Your task to perform on an android device: open a new tab in the chrome app Image 0: 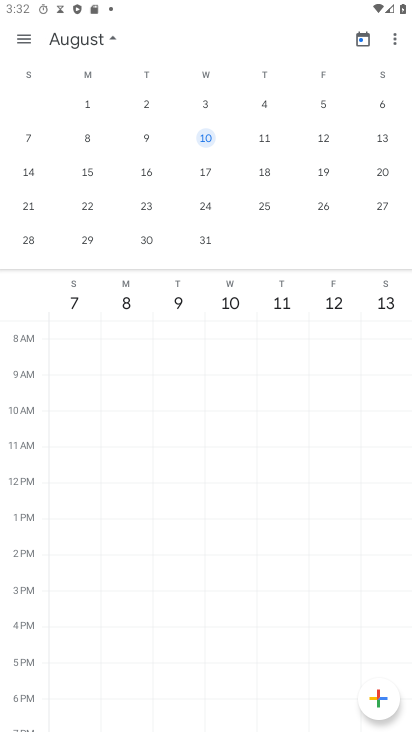
Step 0: press home button
Your task to perform on an android device: open a new tab in the chrome app Image 1: 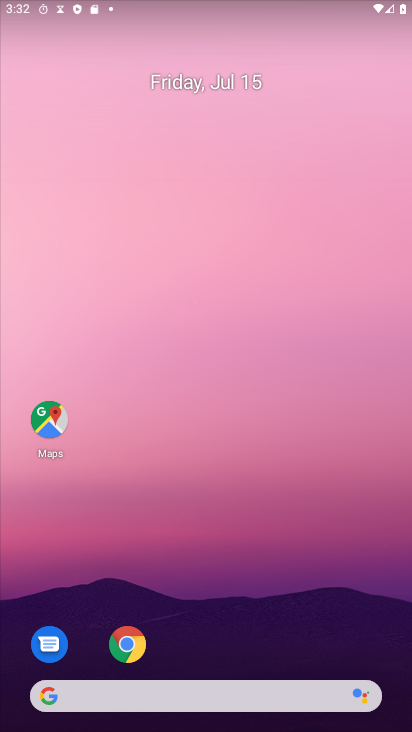
Step 1: drag from (300, 648) to (333, 91)
Your task to perform on an android device: open a new tab in the chrome app Image 2: 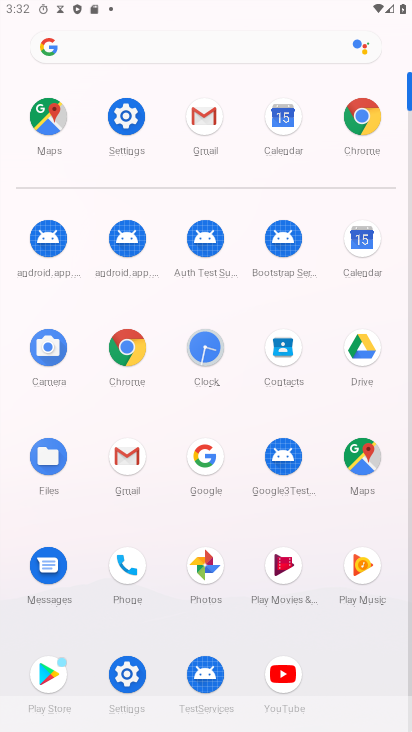
Step 2: click (140, 345)
Your task to perform on an android device: open a new tab in the chrome app Image 3: 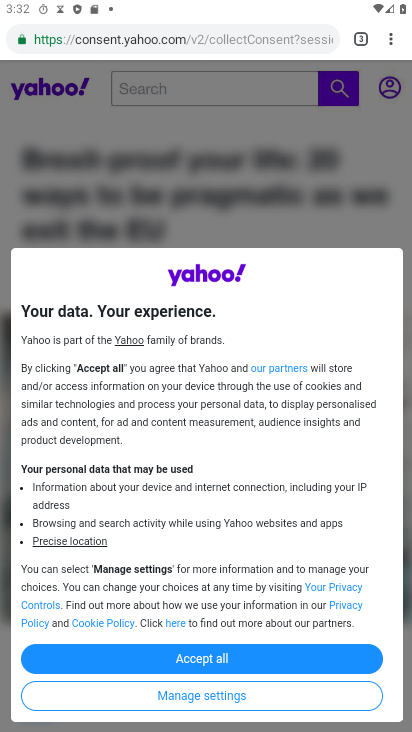
Step 3: click (387, 38)
Your task to perform on an android device: open a new tab in the chrome app Image 4: 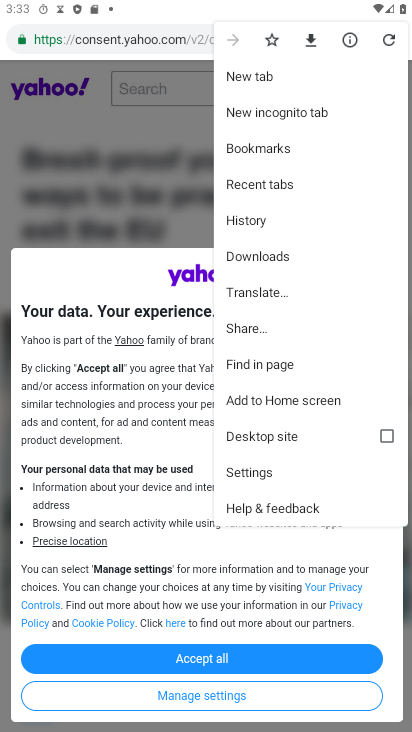
Step 4: click (306, 82)
Your task to perform on an android device: open a new tab in the chrome app Image 5: 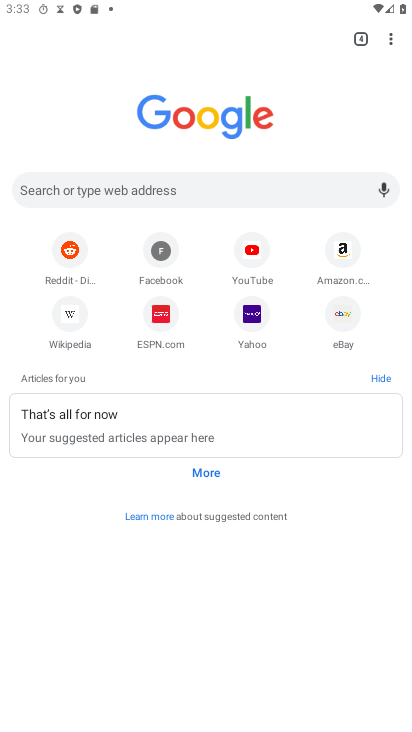
Step 5: task complete